Your task to perform on an android device: clear history in the chrome app Image 0: 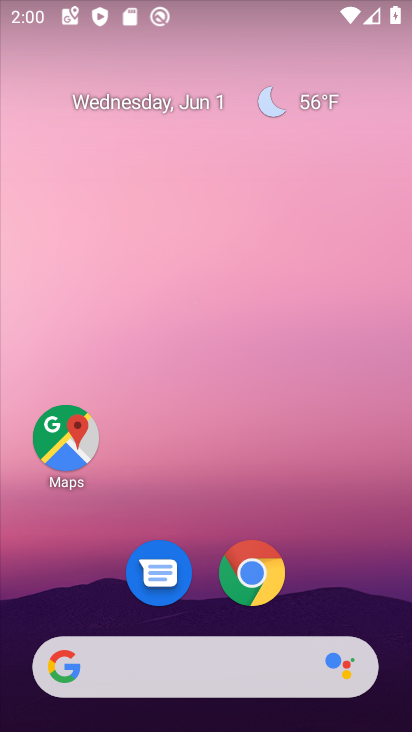
Step 0: drag from (336, 586) to (270, 2)
Your task to perform on an android device: clear history in the chrome app Image 1: 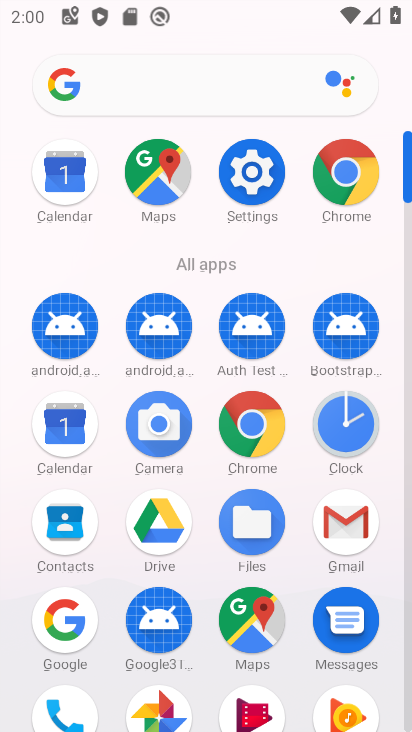
Step 1: click (361, 184)
Your task to perform on an android device: clear history in the chrome app Image 2: 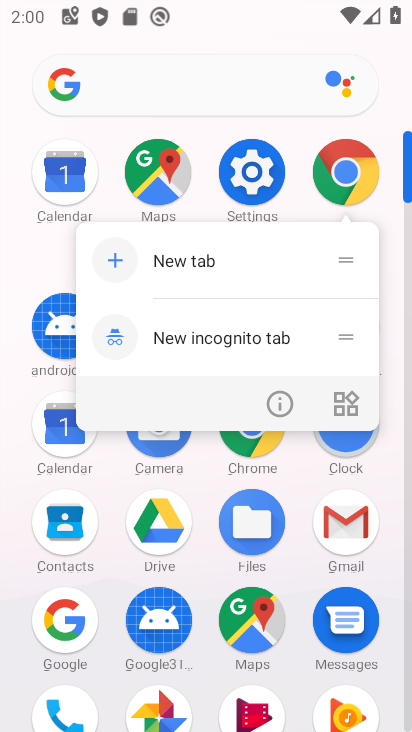
Step 2: click (356, 165)
Your task to perform on an android device: clear history in the chrome app Image 3: 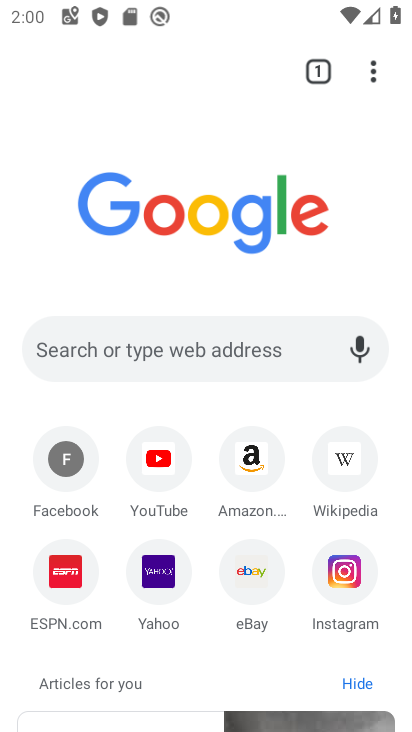
Step 3: task complete